Your task to perform on an android device: open sync settings in chrome Image 0: 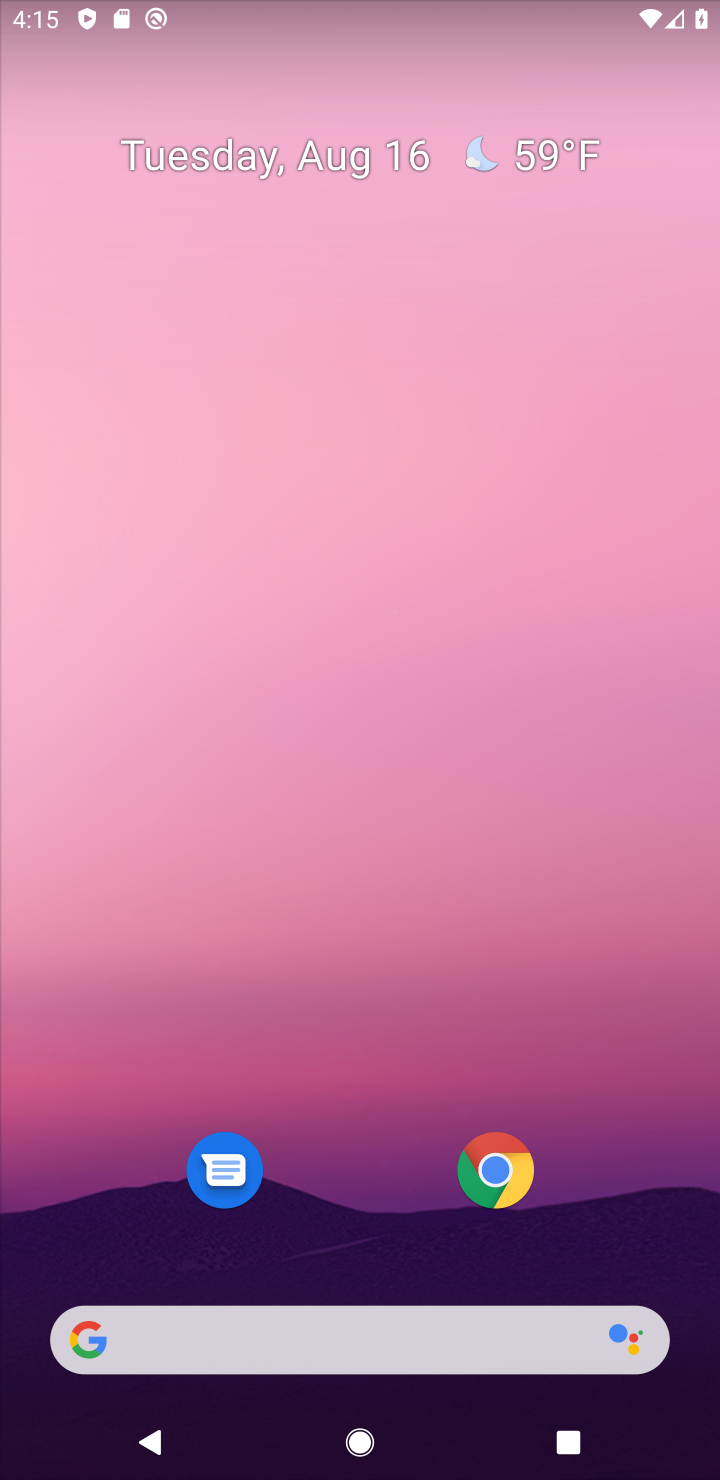
Step 0: click (505, 1153)
Your task to perform on an android device: open sync settings in chrome Image 1: 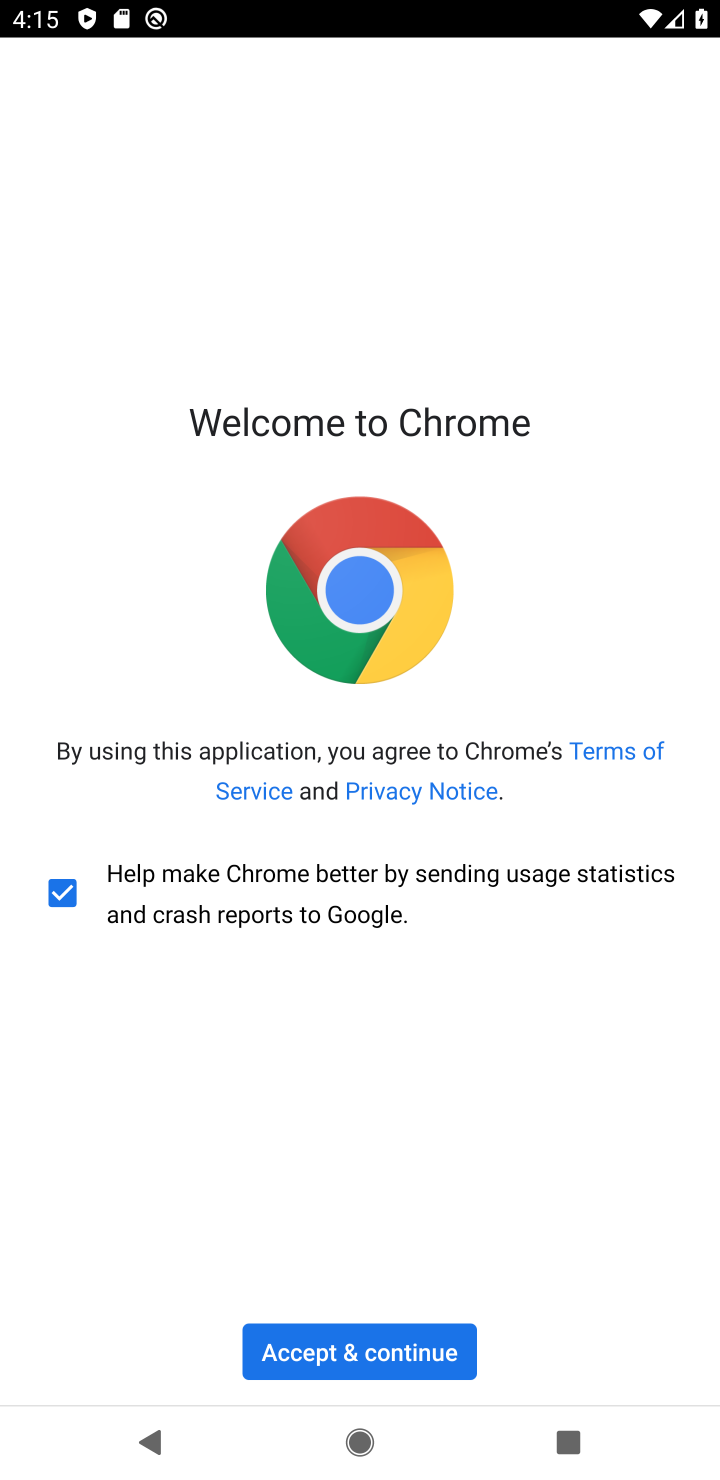
Step 1: click (402, 1350)
Your task to perform on an android device: open sync settings in chrome Image 2: 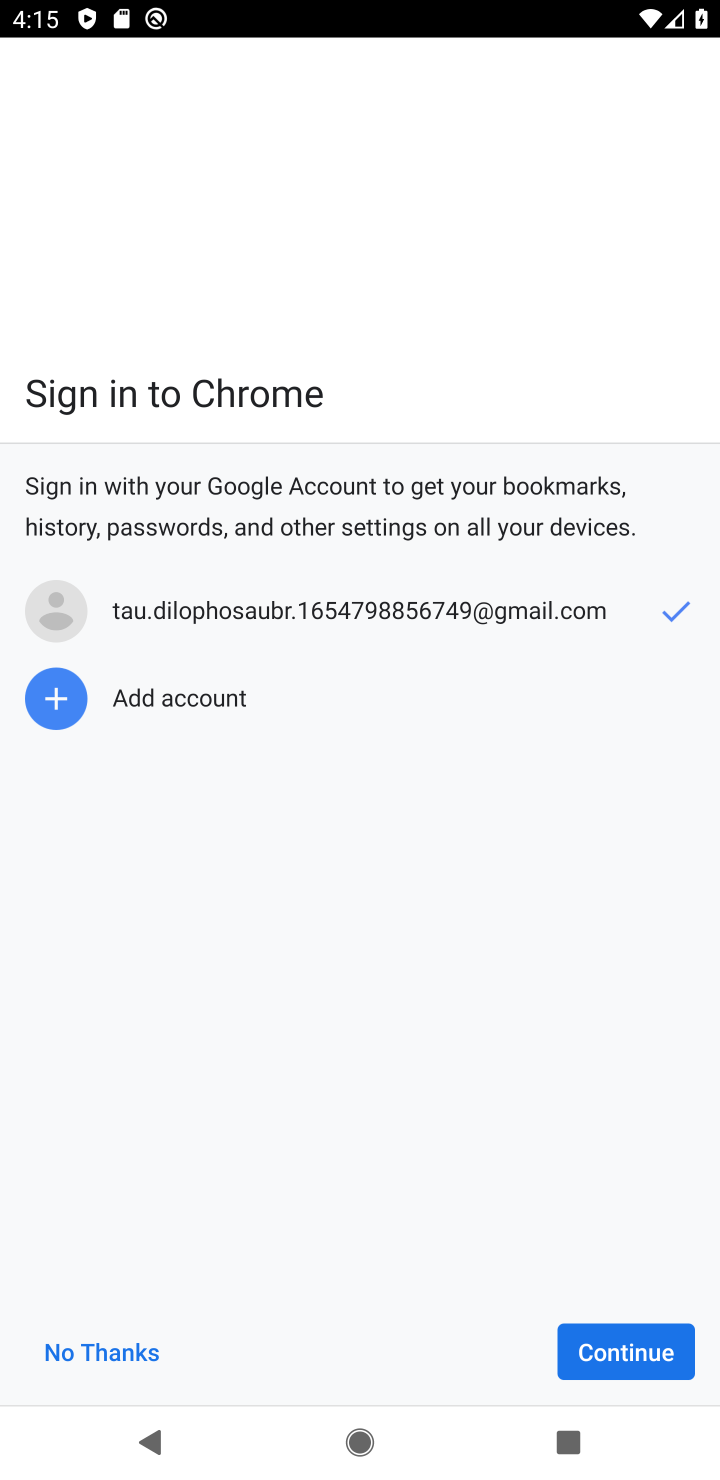
Step 2: click (609, 1357)
Your task to perform on an android device: open sync settings in chrome Image 3: 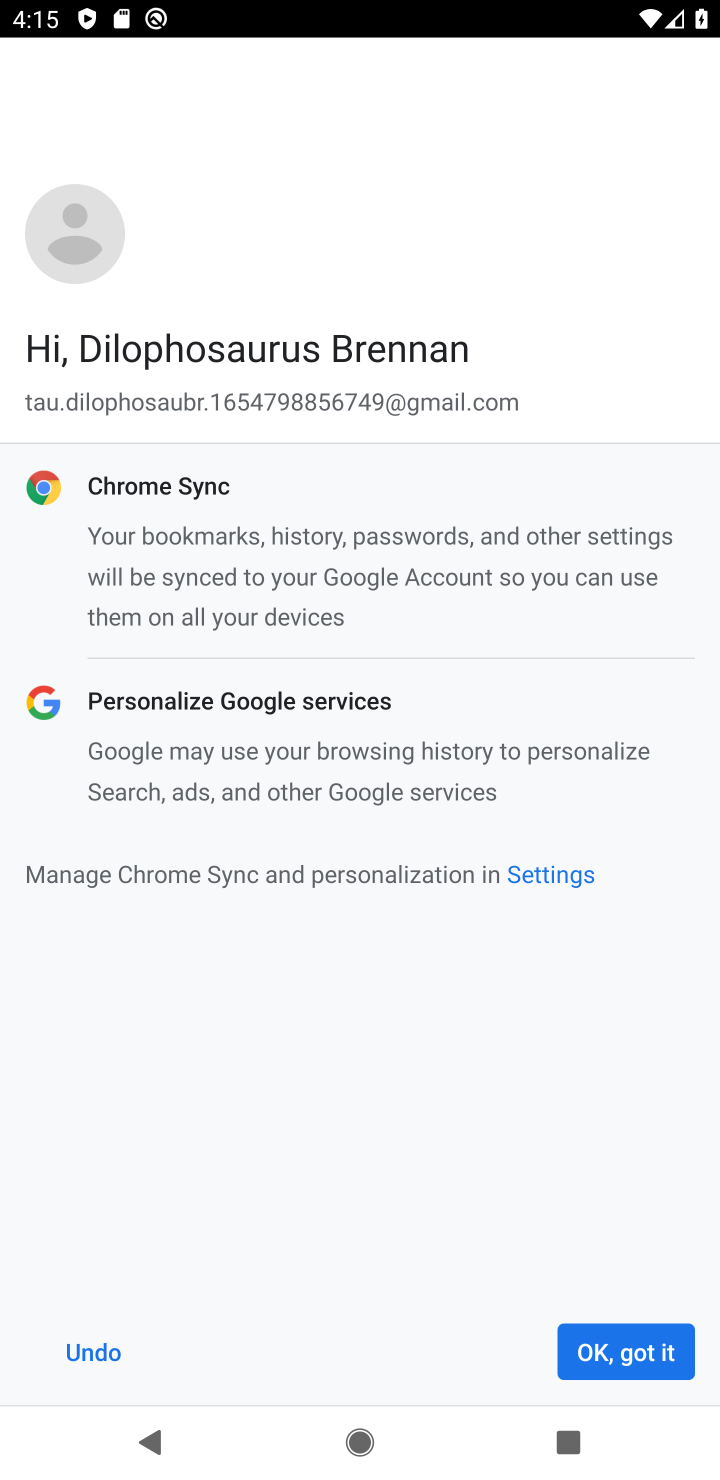
Step 3: click (545, 1345)
Your task to perform on an android device: open sync settings in chrome Image 4: 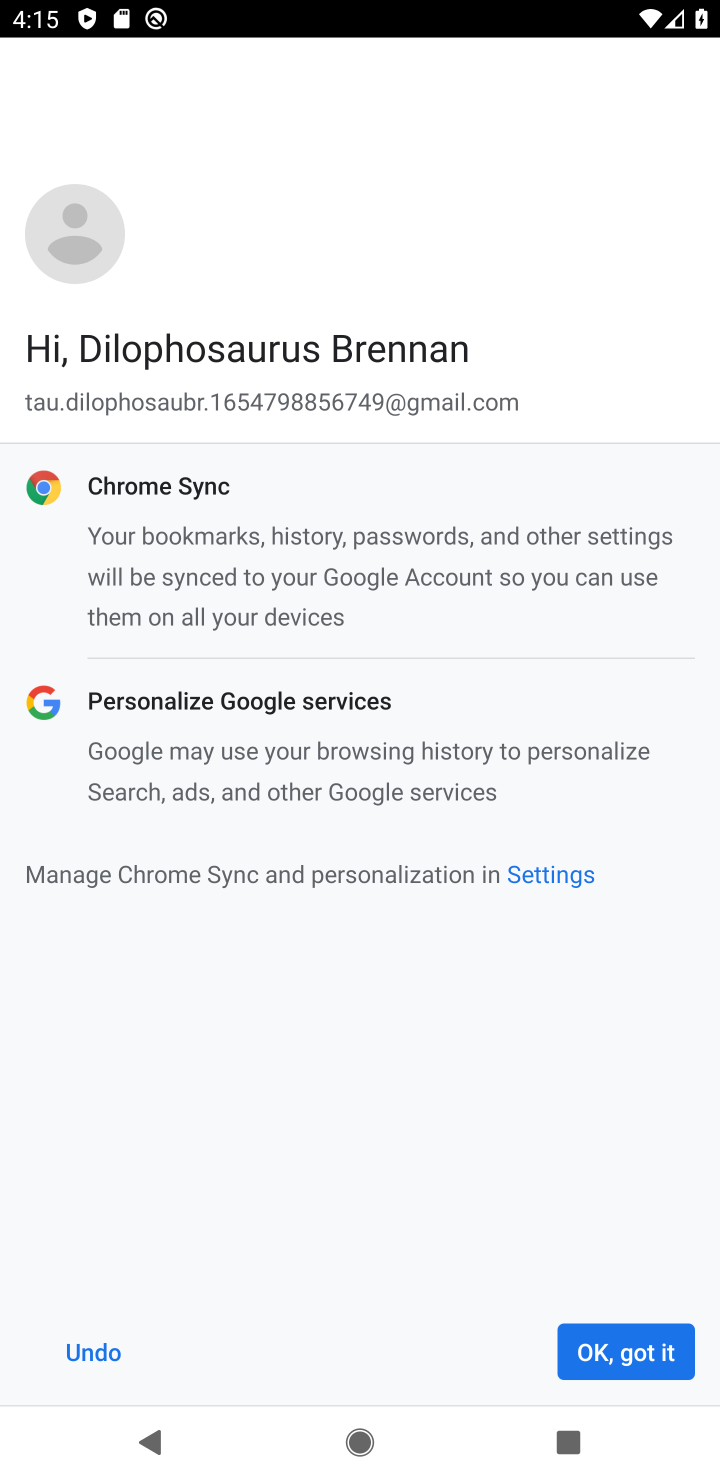
Step 4: click (609, 1362)
Your task to perform on an android device: open sync settings in chrome Image 5: 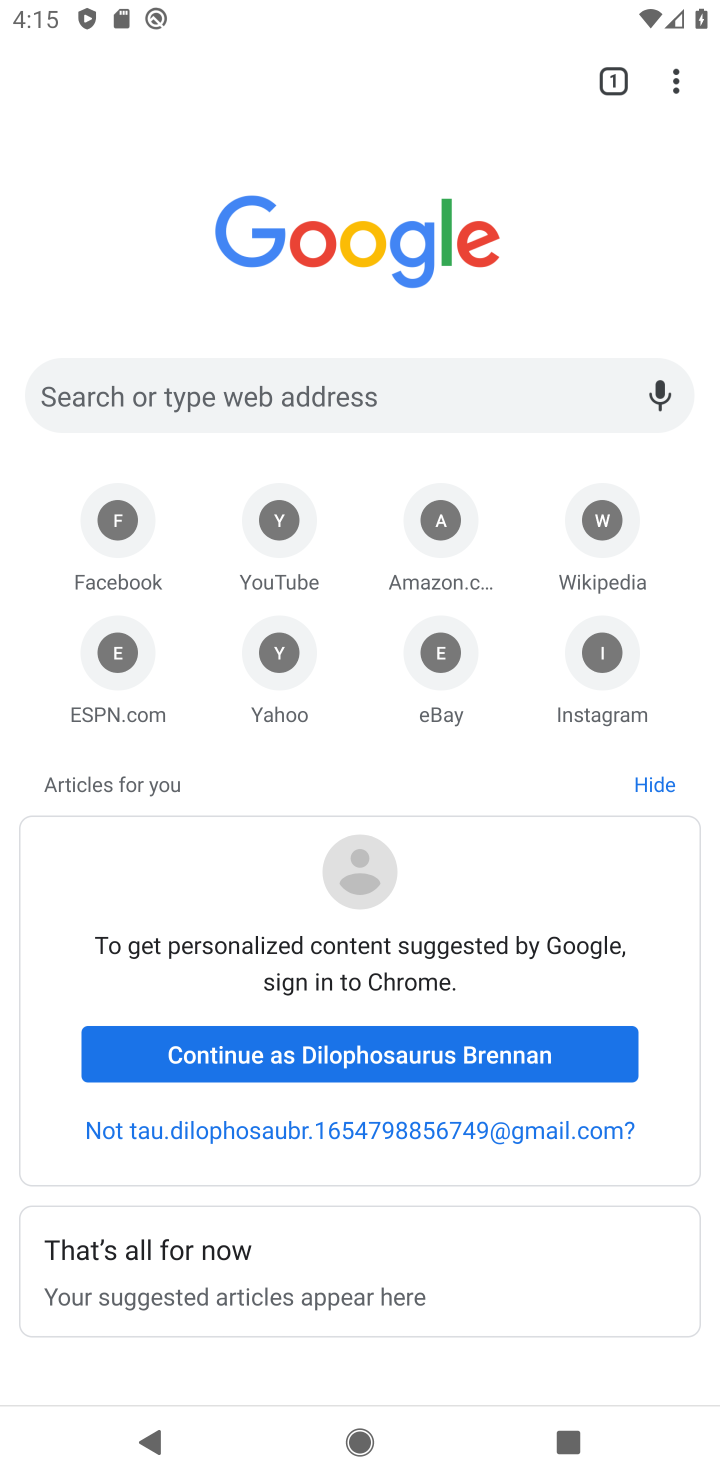
Step 5: click (670, 71)
Your task to perform on an android device: open sync settings in chrome Image 6: 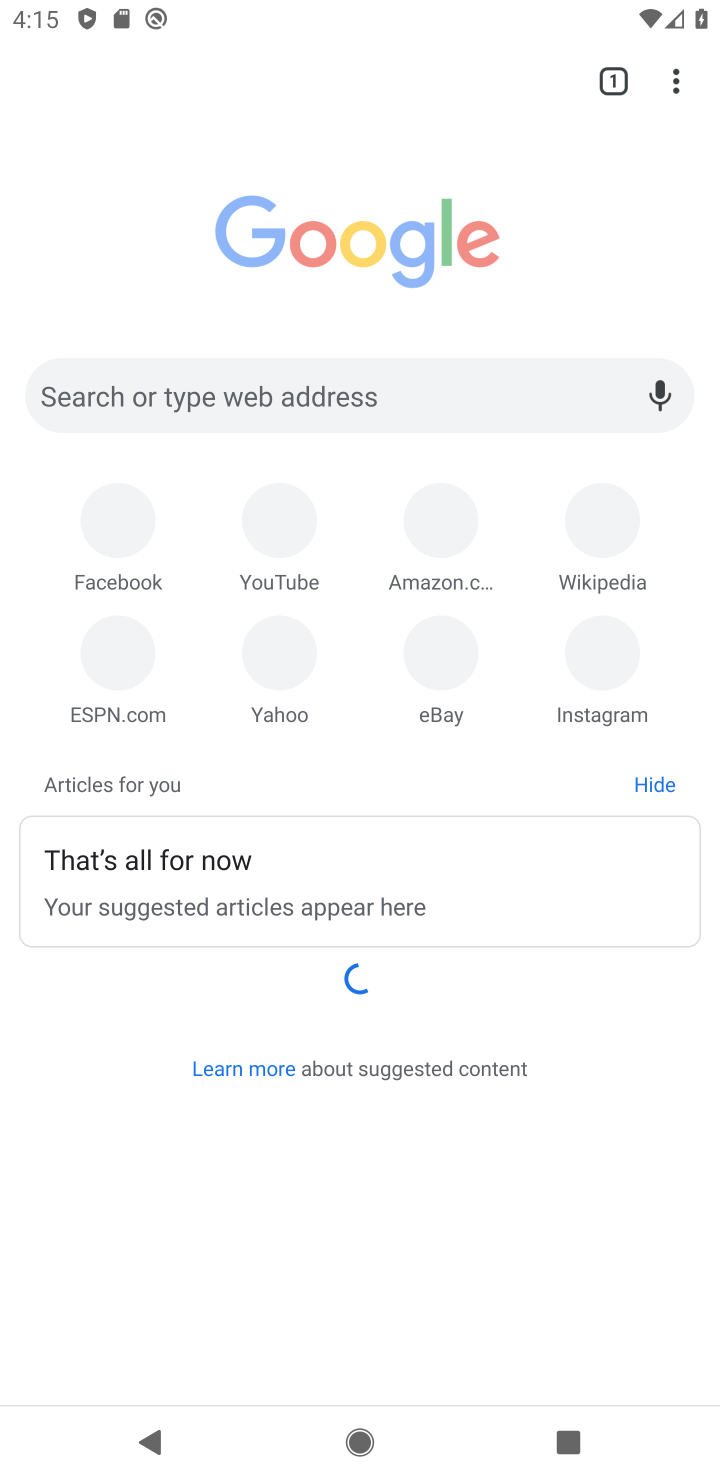
Step 6: click (667, 90)
Your task to perform on an android device: open sync settings in chrome Image 7: 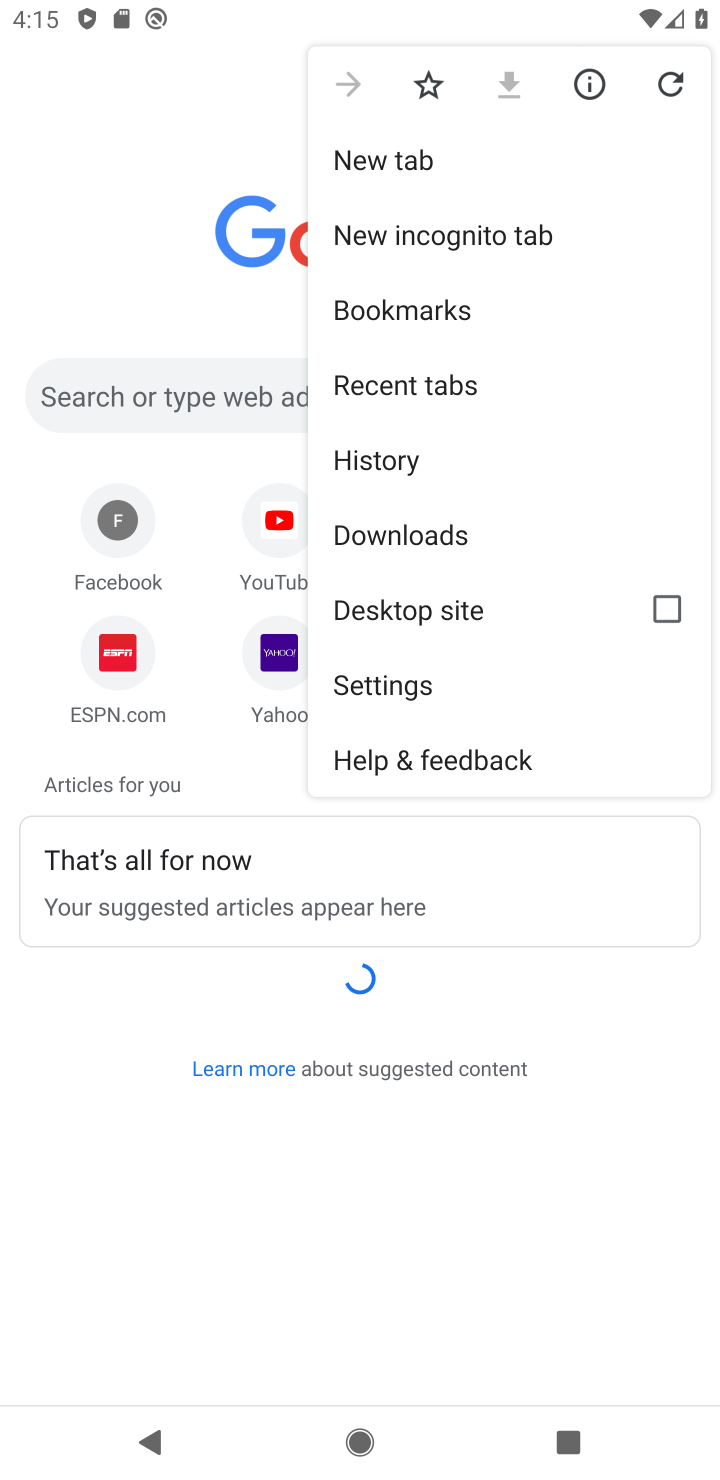
Step 7: click (414, 686)
Your task to perform on an android device: open sync settings in chrome Image 8: 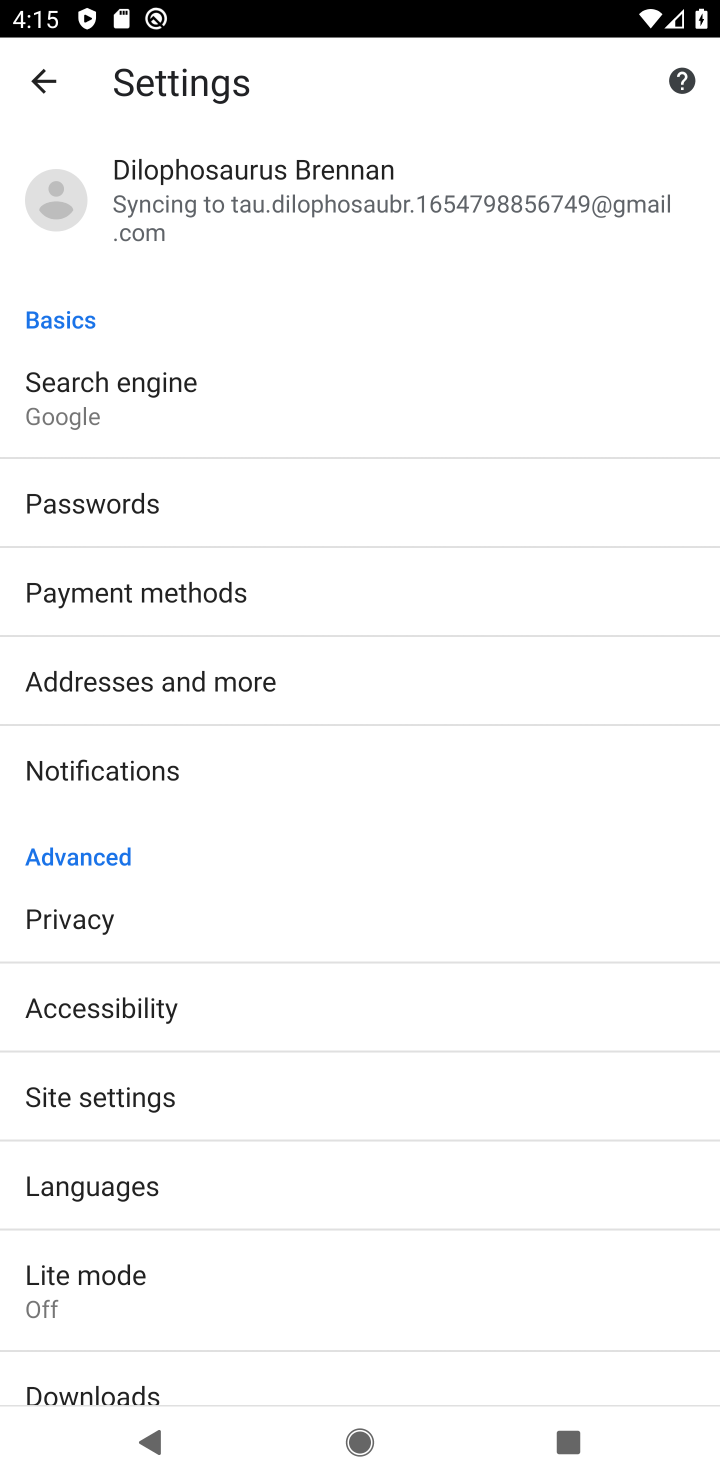
Step 8: click (187, 1142)
Your task to perform on an android device: open sync settings in chrome Image 9: 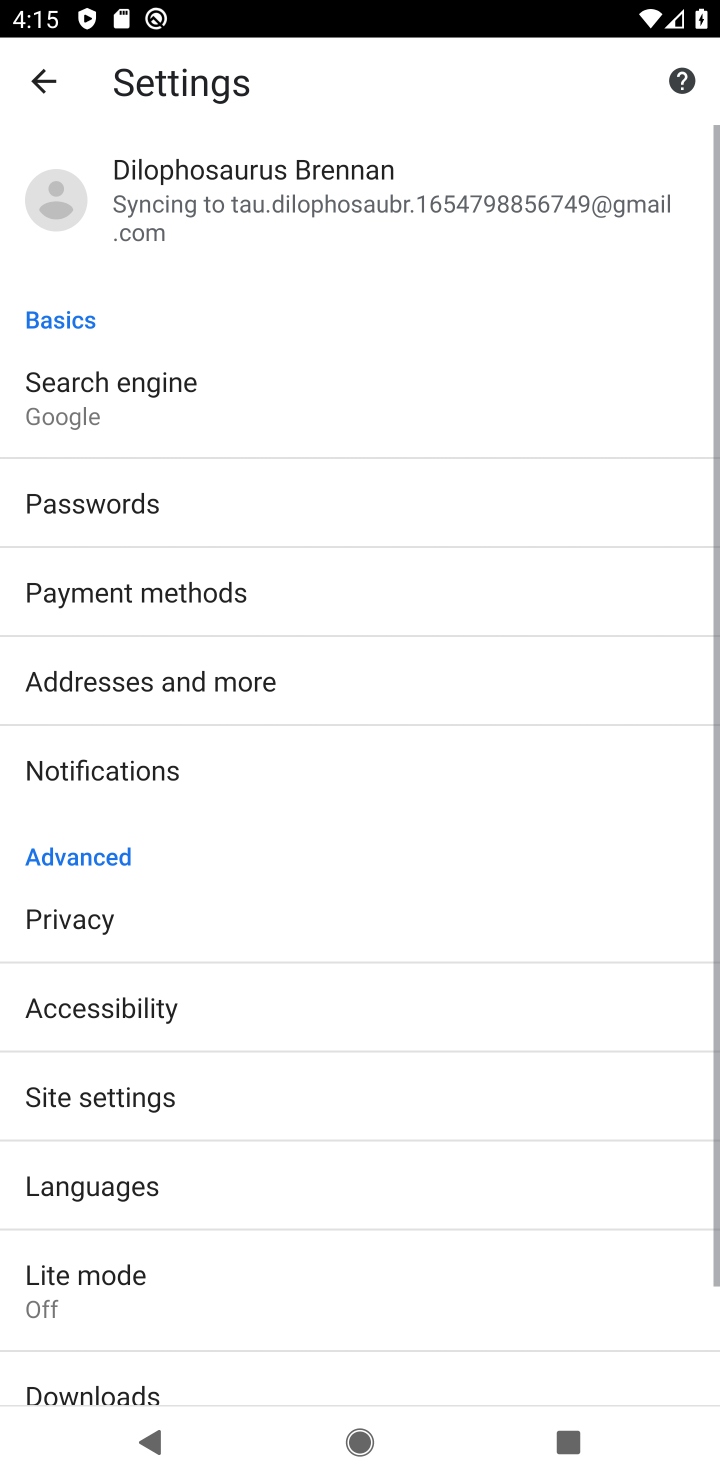
Step 9: click (156, 229)
Your task to perform on an android device: open sync settings in chrome Image 10: 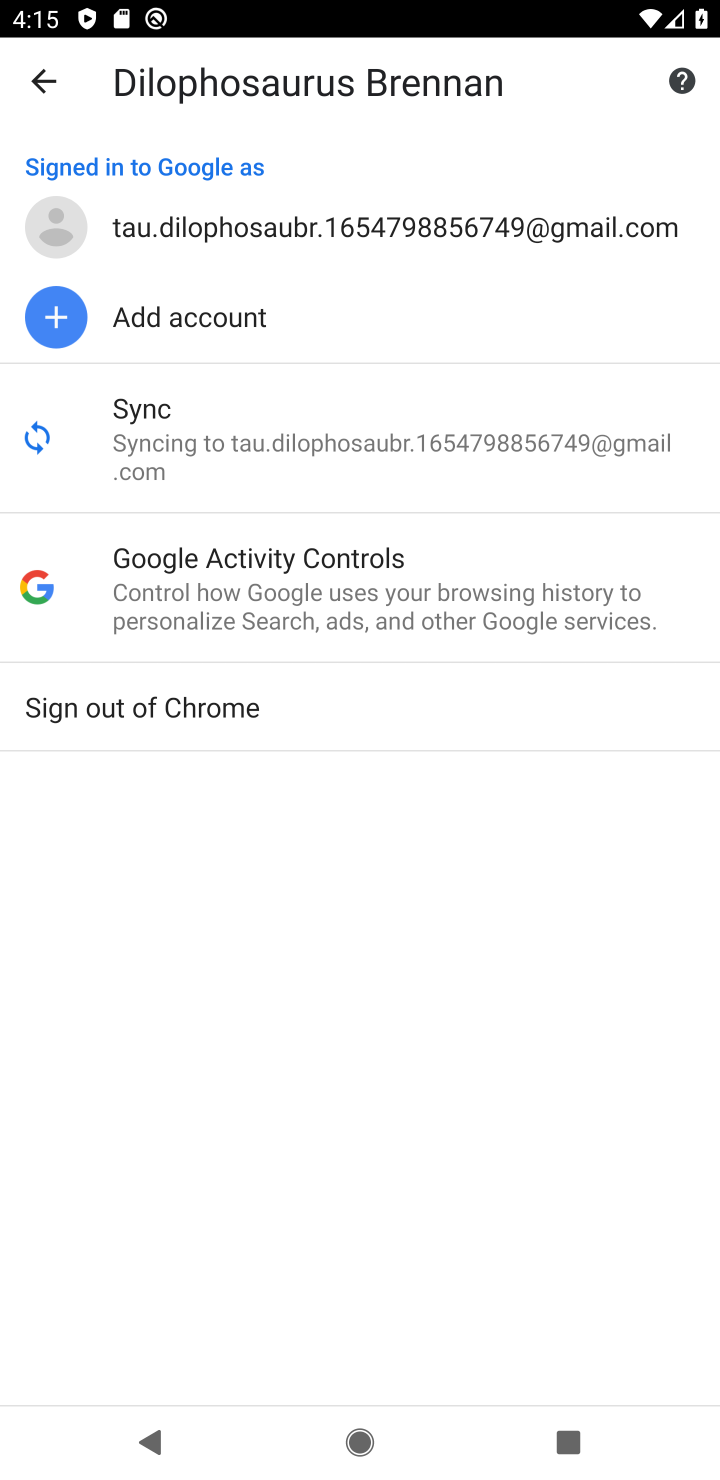
Step 10: click (152, 463)
Your task to perform on an android device: open sync settings in chrome Image 11: 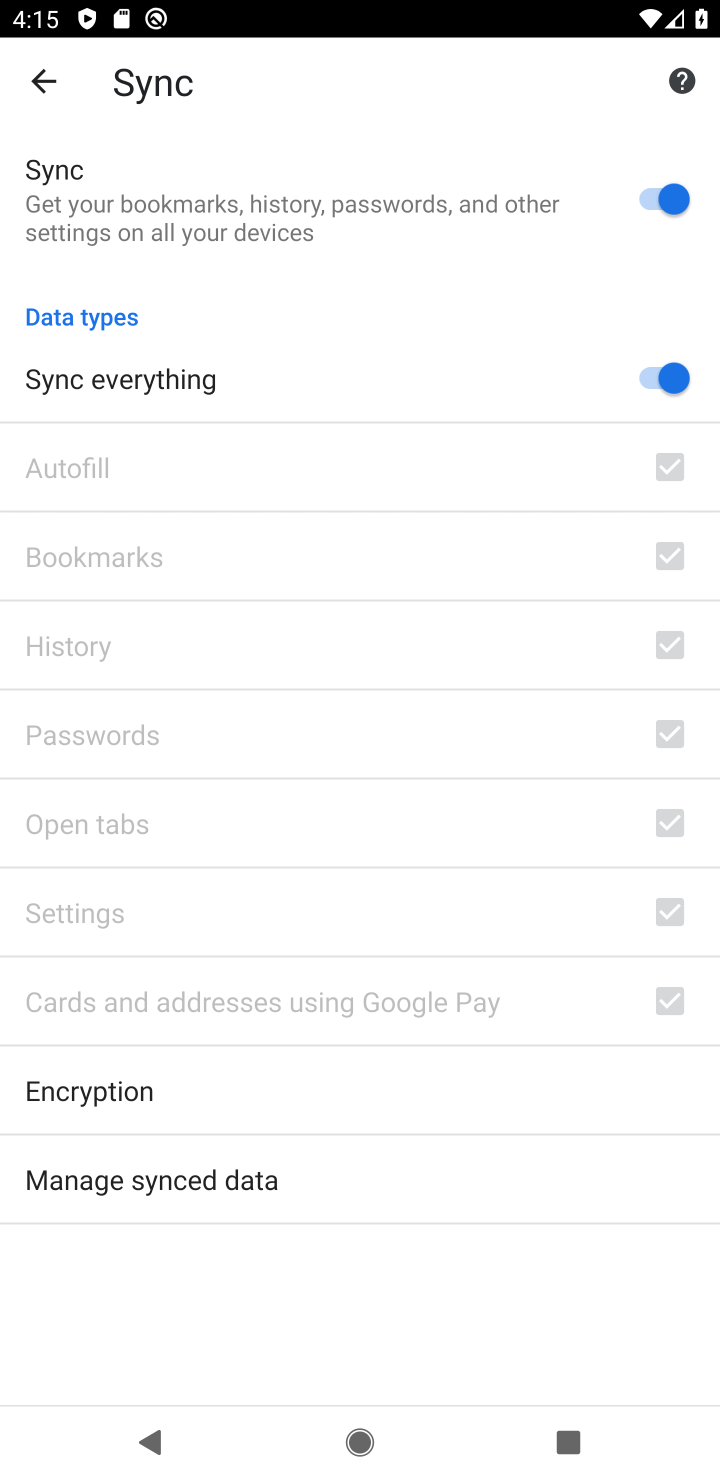
Step 11: task complete